Your task to perform on an android device: Open internet settings Image 0: 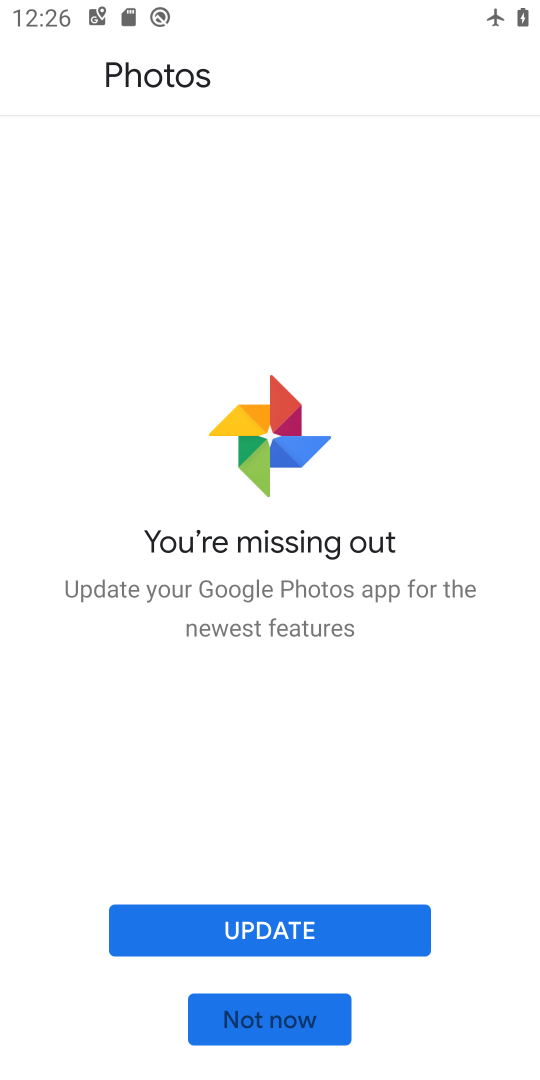
Step 0: press home button
Your task to perform on an android device: Open internet settings Image 1: 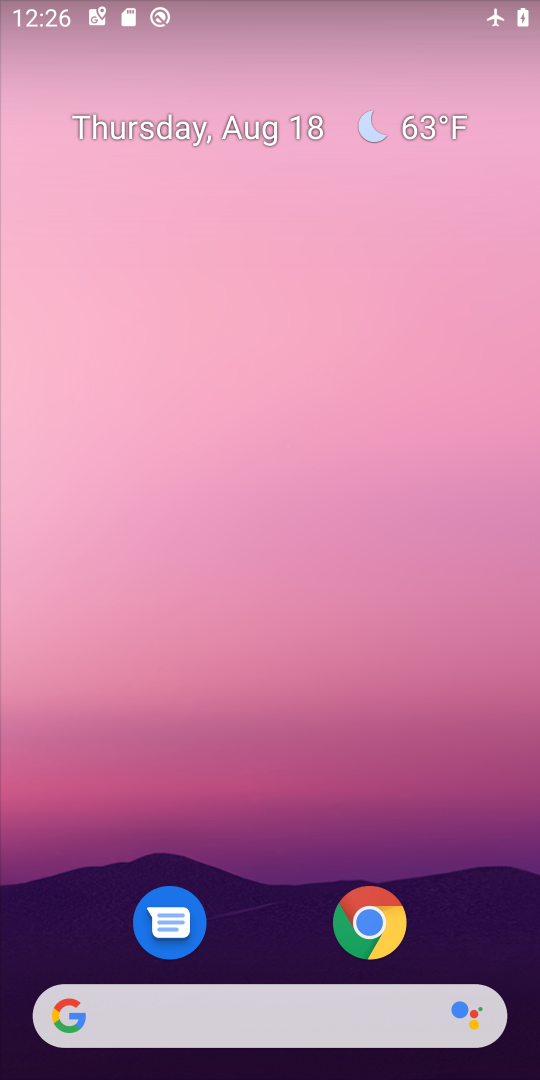
Step 1: drag from (273, 839) to (227, 120)
Your task to perform on an android device: Open internet settings Image 2: 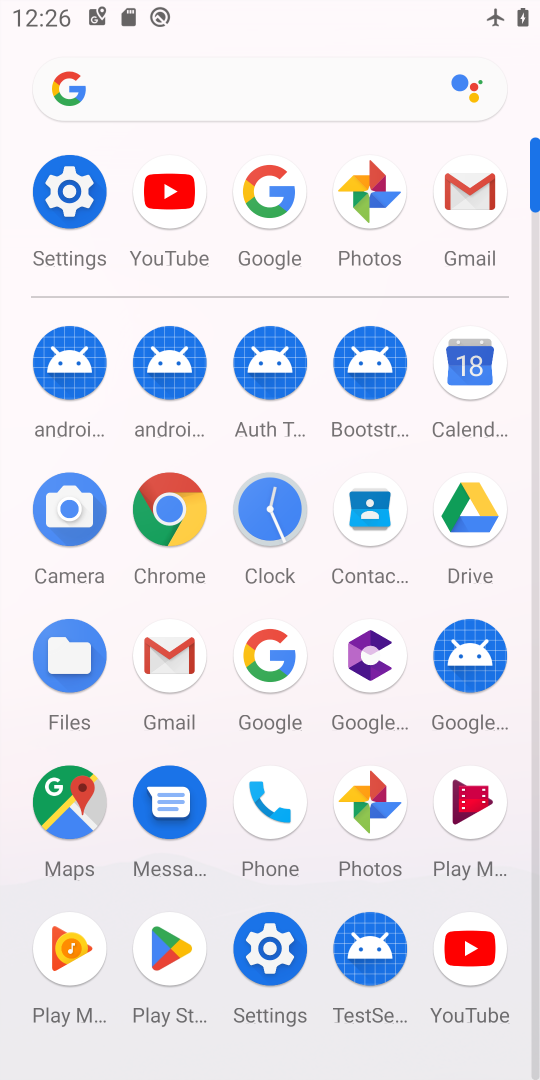
Step 2: click (68, 190)
Your task to perform on an android device: Open internet settings Image 3: 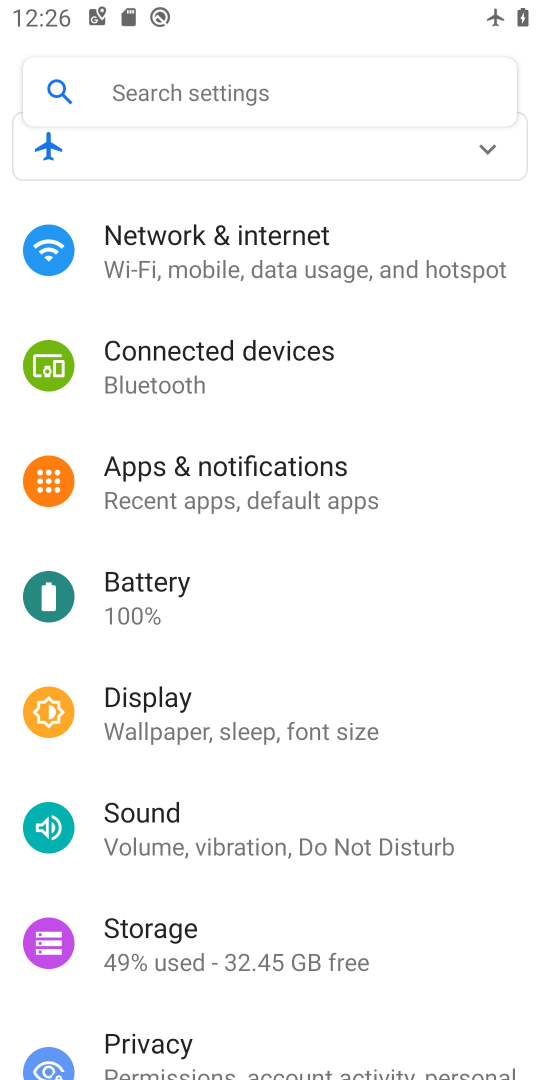
Step 3: click (229, 225)
Your task to perform on an android device: Open internet settings Image 4: 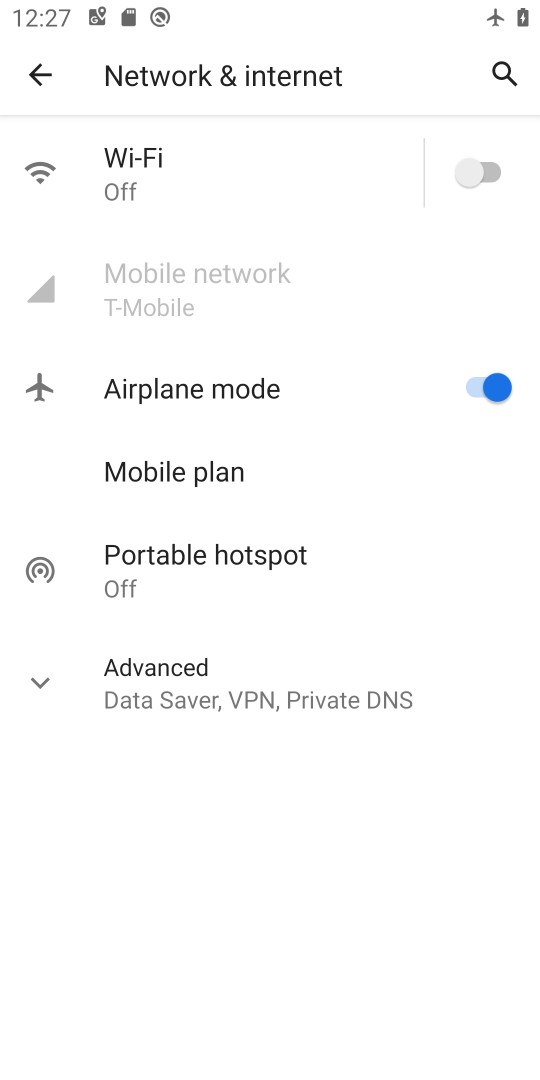
Step 4: task complete